Your task to perform on an android device: Open Google Maps Image 0: 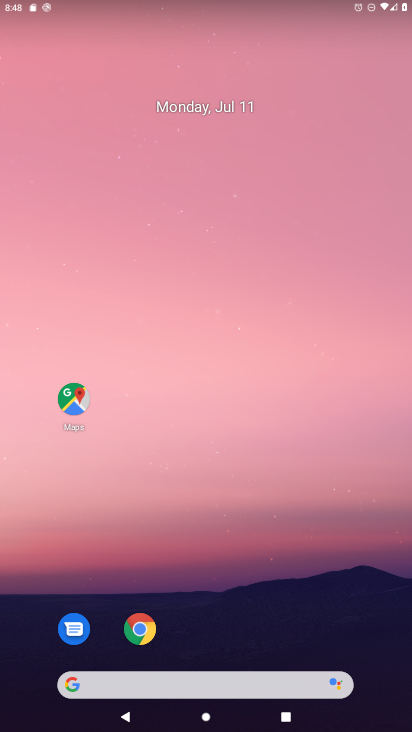
Step 0: click (69, 413)
Your task to perform on an android device: Open Google Maps Image 1: 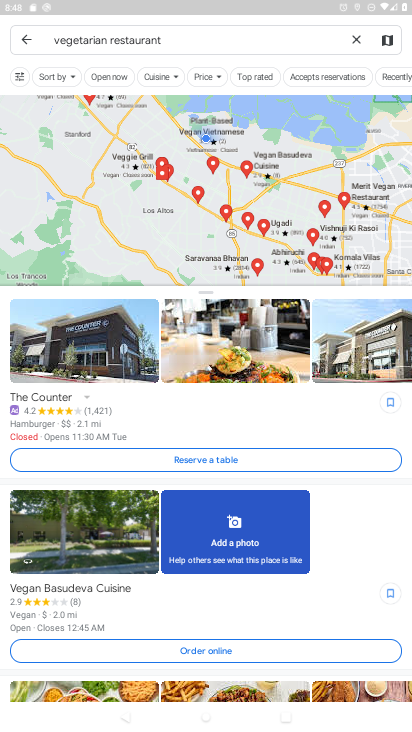
Step 1: task complete